Your task to perform on an android device: uninstall "Google Chrome" Image 0: 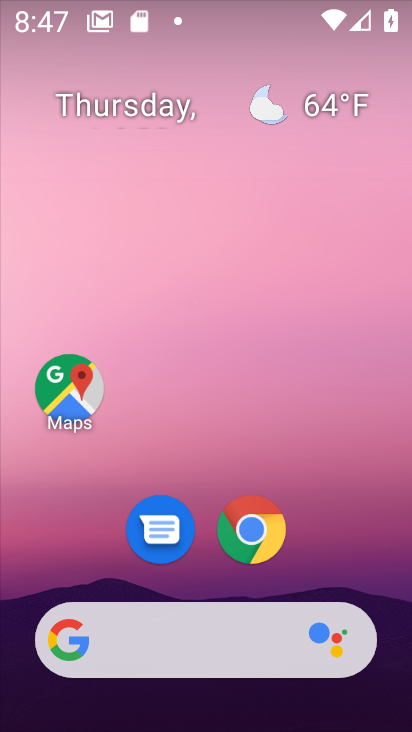
Step 0: drag from (189, 721) to (197, 93)
Your task to perform on an android device: uninstall "Google Chrome" Image 1: 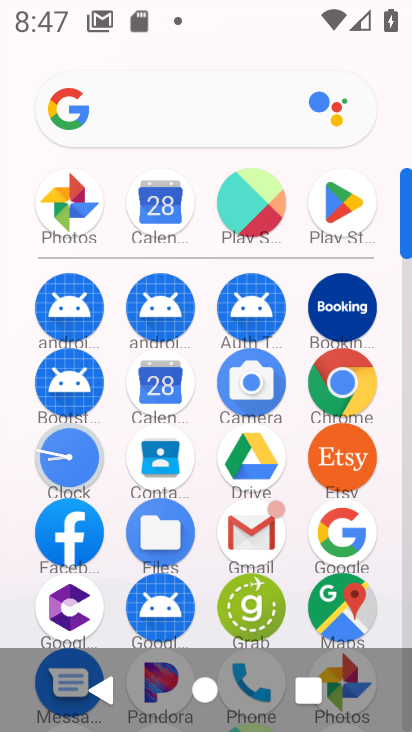
Step 1: click (342, 212)
Your task to perform on an android device: uninstall "Google Chrome" Image 2: 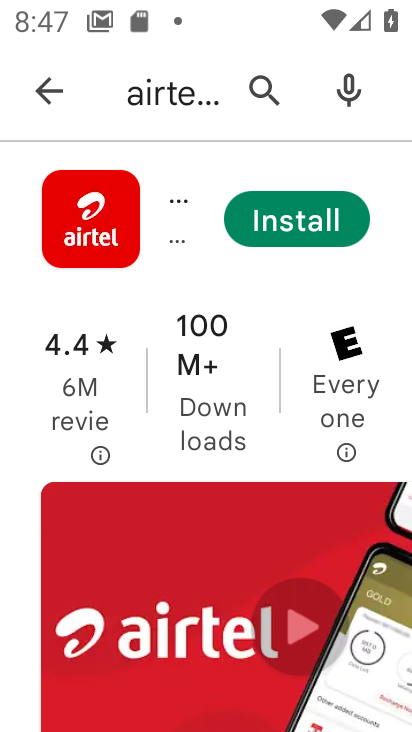
Step 2: click (252, 84)
Your task to perform on an android device: uninstall "Google Chrome" Image 3: 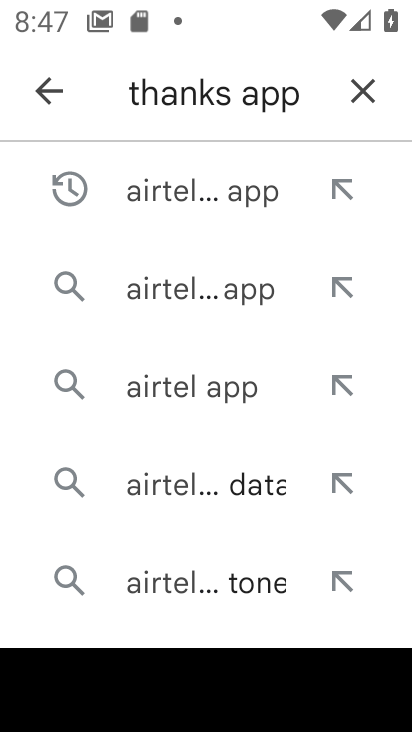
Step 3: click (359, 89)
Your task to perform on an android device: uninstall "Google Chrome" Image 4: 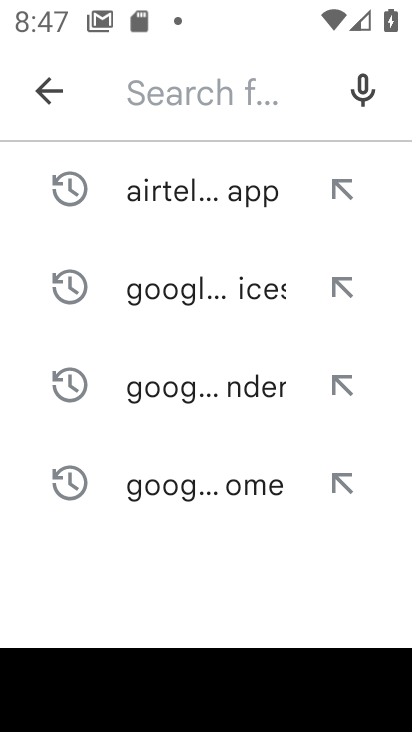
Step 4: type "Google Chrome"
Your task to perform on an android device: uninstall "Google Chrome" Image 5: 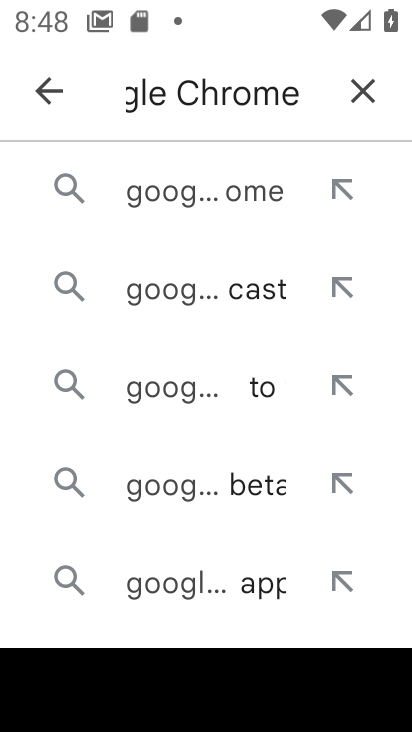
Step 5: click (195, 197)
Your task to perform on an android device: uninstall "Google Chrome" Image 6: 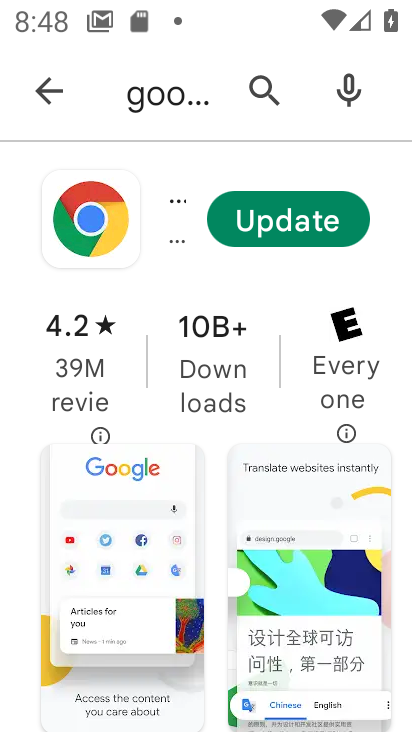
Step 6: click (167, 207)
Your task to perform on an android device: uninstall "Google Chrome" Image 7: 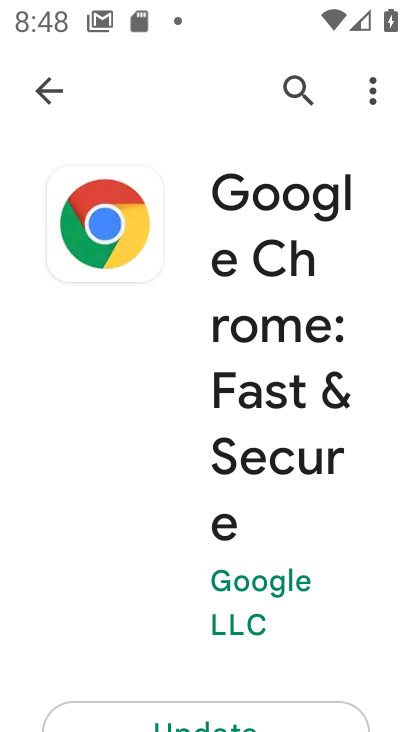
Step 7: task complete